Your task to perform on an android device: Open Chrome and go to settings Image 0: 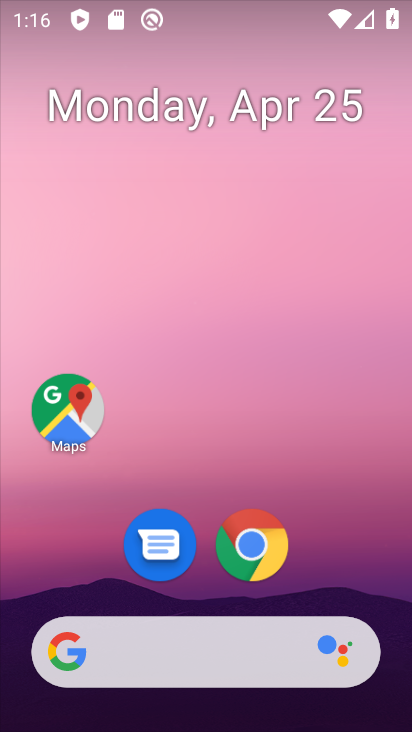
Step 0: click (255, 542)
Your task to perform on an android device: Open Chrome and go to settings Image 1: 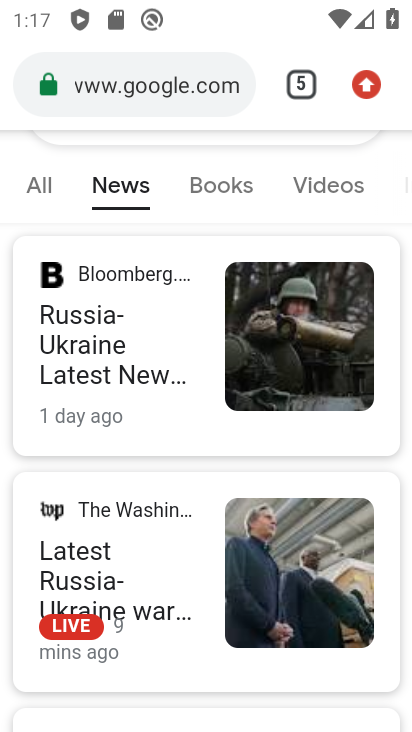
Step 1: click (371, 85)
Your task to perform on an android device: Open Chrome and go to settings Image 2: 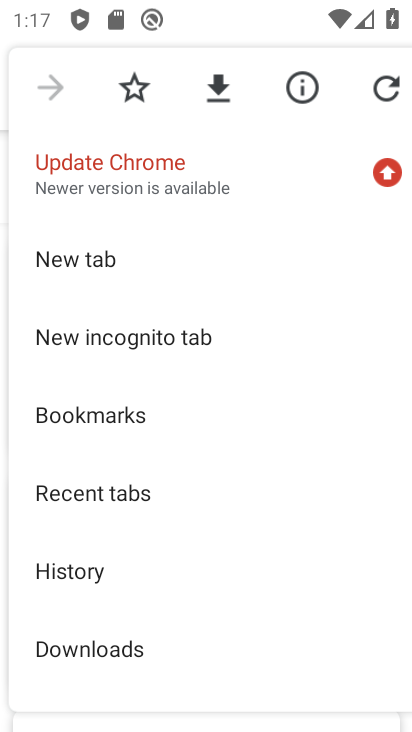
Step 2: drag from (208, 630) to (215, 195)
Your task to perform on an android device: Open Chrome and go to settings Image 3: 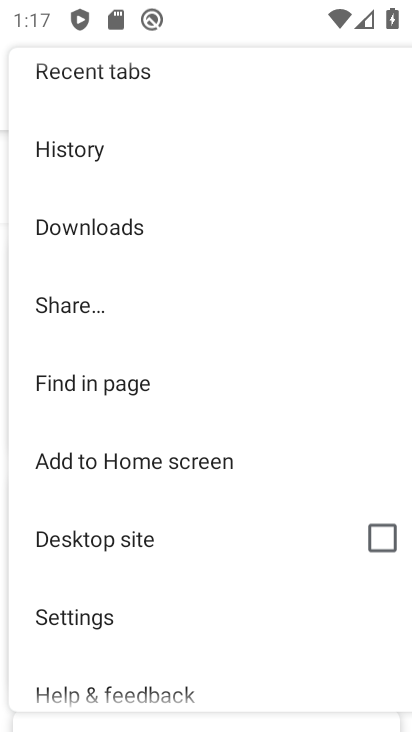
Step 3: click (110, 624)
Your task to perform on an android device: Open Chrome and go to settings Image 4: 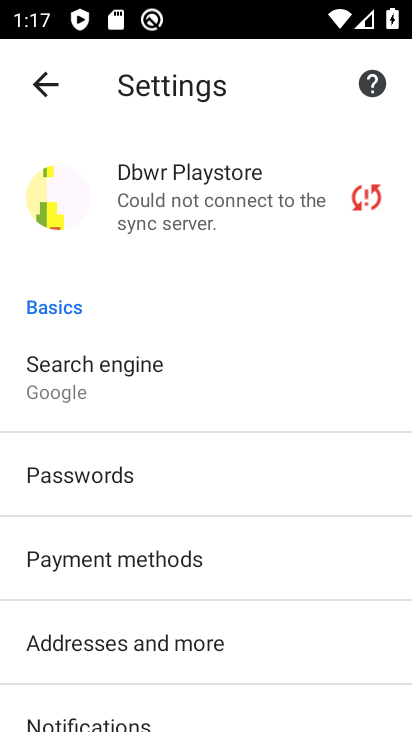
Step 4: task complete